Your task to perform on an android device: toggle pop-ups in chrome Image 0: 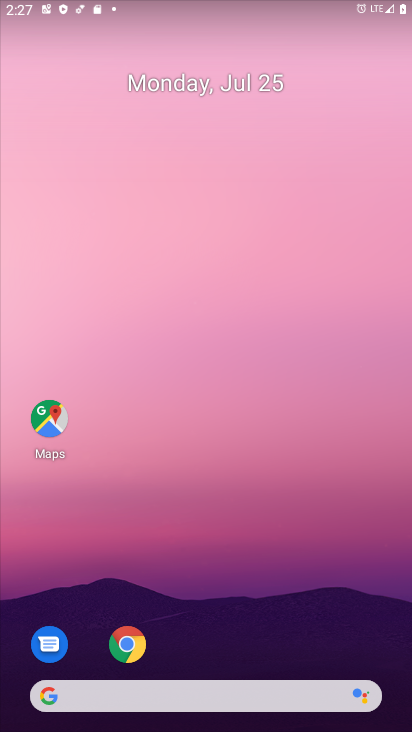
Step 0: drag from (381, 637) to (174, 19)
Your task to perform on an android device: toggle pop-ups in chrome Image 1: 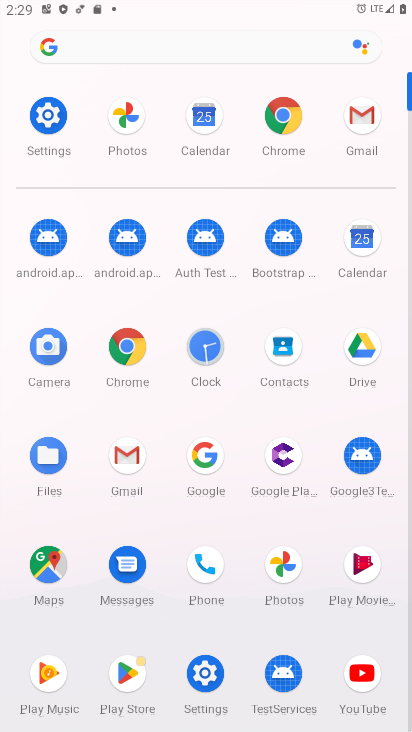
Step 1: click (112, 345)
Your task to perform on an android device: toggle pop-ups in chrome Image 2: 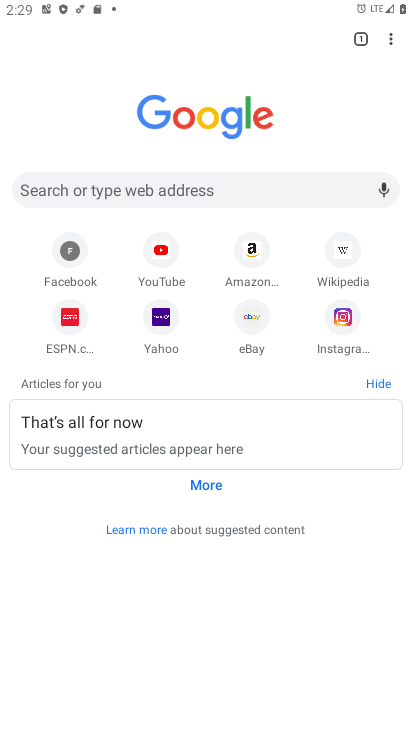
Step 2: click (391, 40)
Your task to perform on an android device: toggle pop-ups in chrome Image 3: 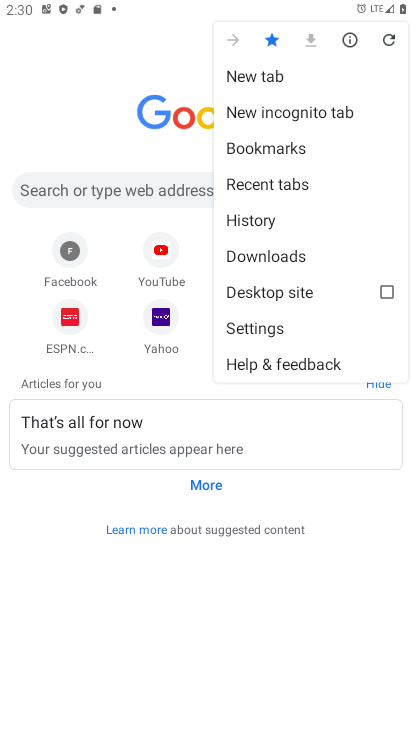
Step 3: click (260, 337)
Your task to perform on an android device: toggle pop-ups in chrome Image 4: 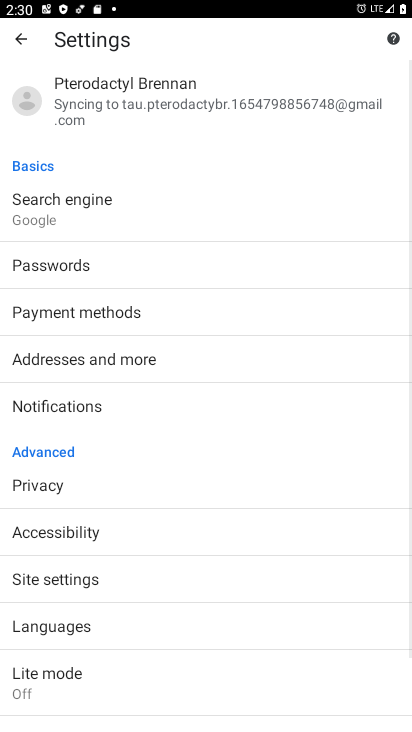
Step 4: click (62, 595)
Your task to perform on an android device: toggle pop-ups in chrome Image 5: 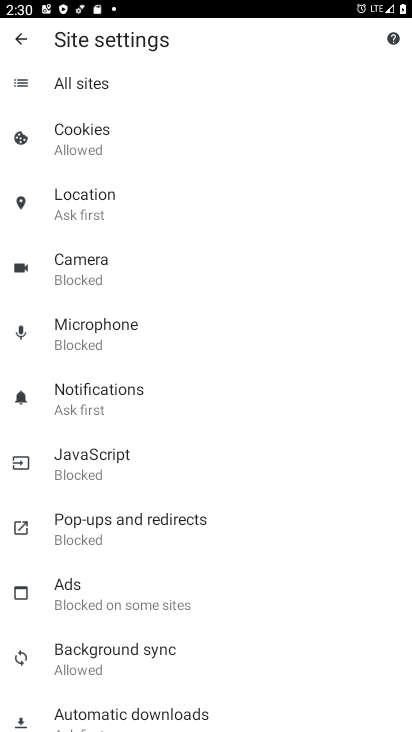
Step 5: click (152, 509)
Your task to perform on an android device: toggle pop-ups in chrome Image 6: 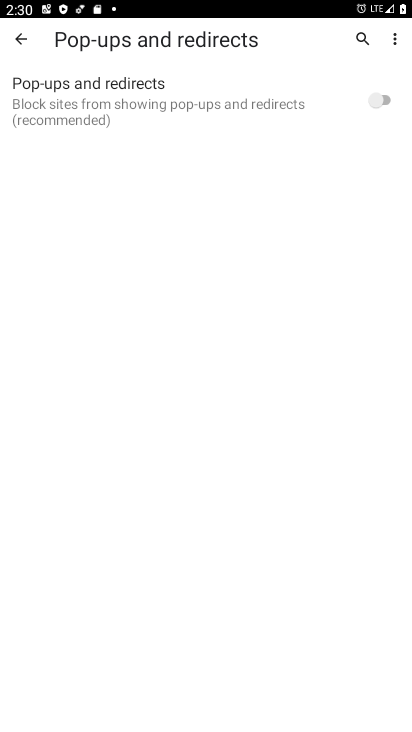
Step 6: click (374, 106)
Your task to perform on an android device: toggle pop-ups in chrome Image 7: 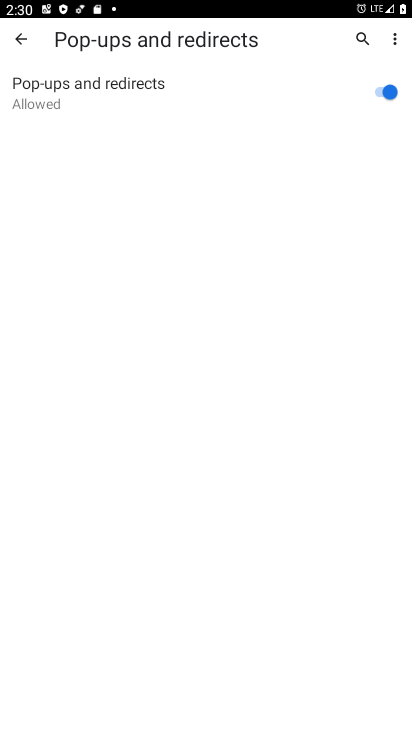
Step 7: task complete